Your task to perform on an android device: turn off javascript in the chrome app Image 0: 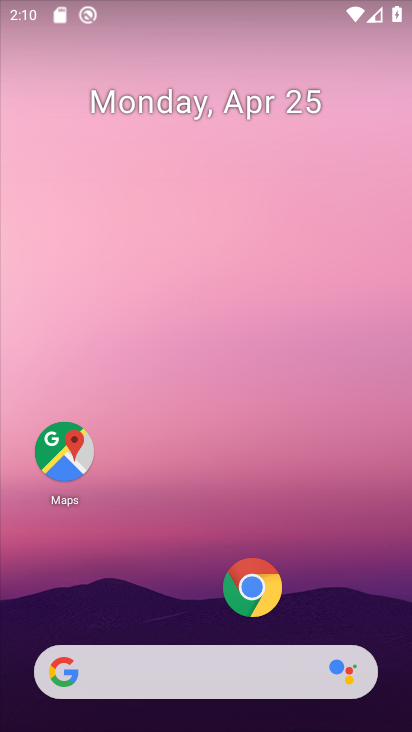
Step 0: drag from (188, 620) to (197, 3)
Your task to perform on an android device: turn off javascript in the chrome app Image 1: 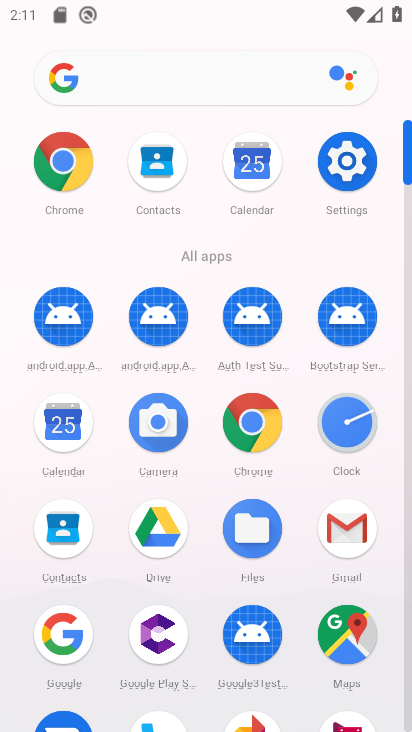
Step 1: click (248, 411)
Your task to perform on an android device: turn off javascript in the chrome app Image 2: 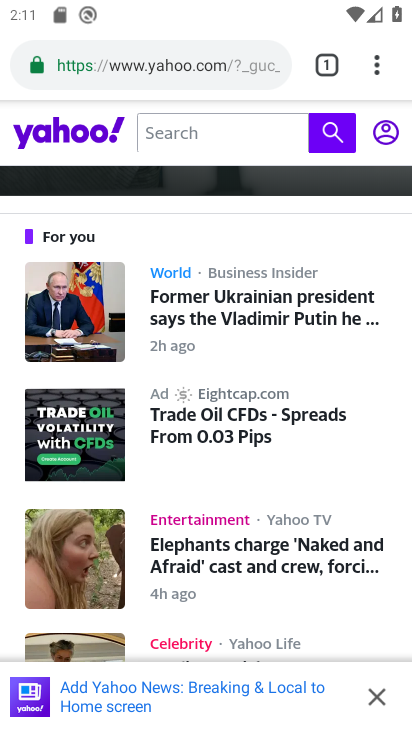
Step 2: click (372, 70)
Your task to perform on an android device: turn off javascript in the chrome app Image 3: 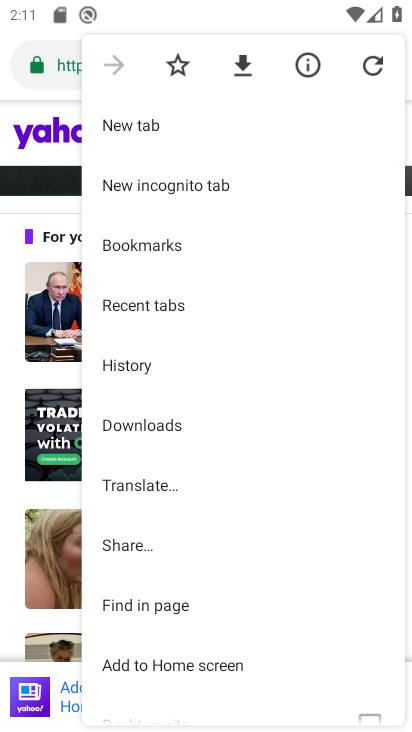
Step 3: drag from (224, 622) to (259, 225)
Your task to perform on an android device: turn off javascript in the chrome app Image 4: 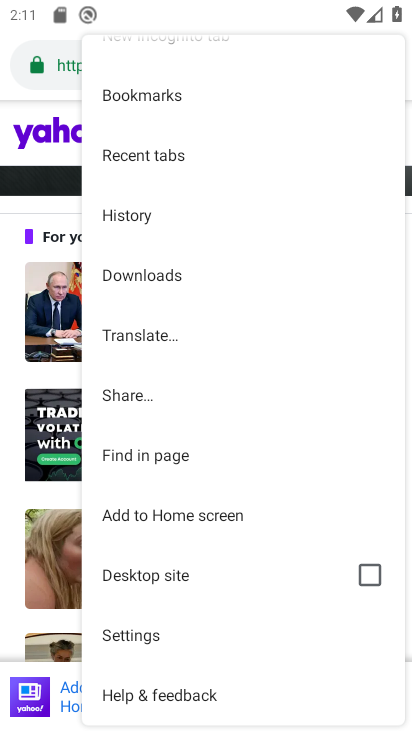
Step 4: click (166, 632)
Your task to perform on an android device: turn off javascript in the chrome app Image 5: 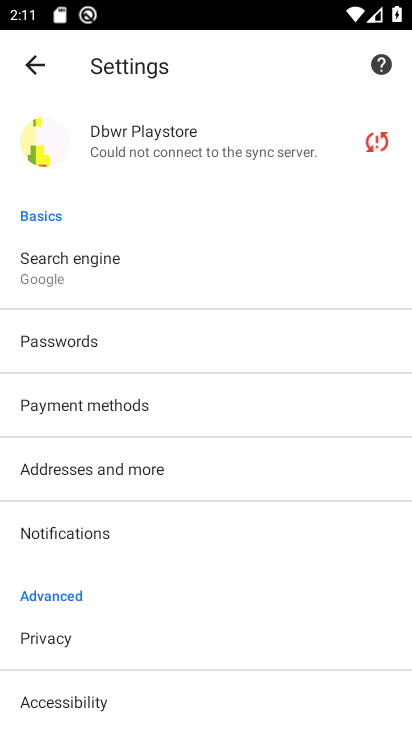
Step 5: drag from (190, 682) to (260, 124)
Your task to perform on an android device: turn off javascript in the chrome app Image 6: 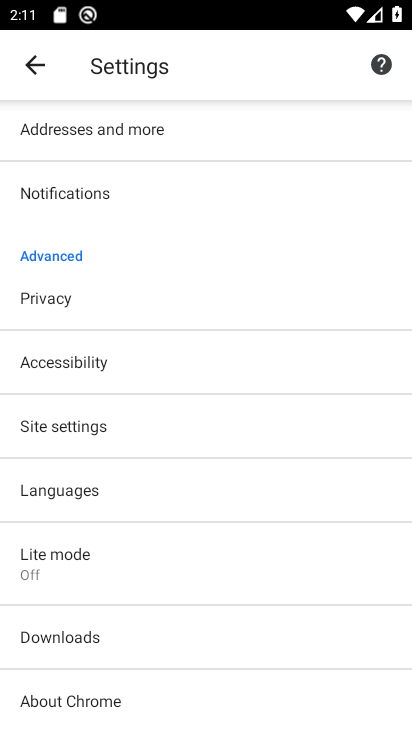
Step 6: click (127, 419)
Your task to perform on an android device: turn off javascript in the chrome app Image 7: 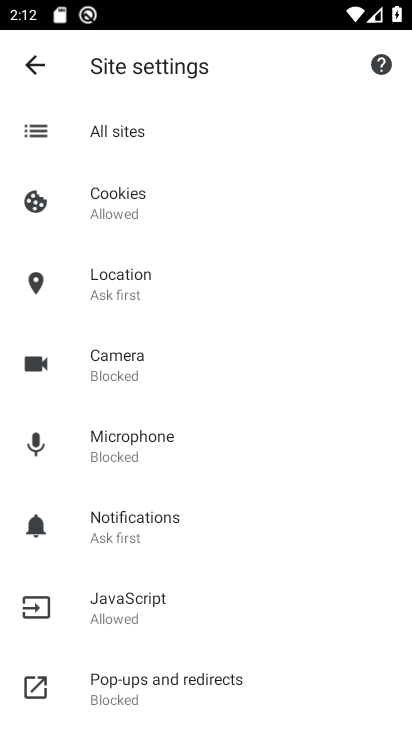
Step 7: click (168, 606)
Your task to perform on an android device: turn off javascript in the chrome app Image 8: 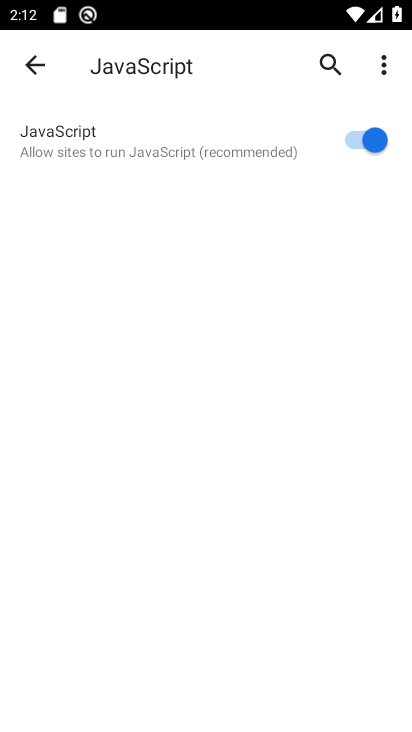
Step 8: click (351, 133)
Your task to perform on an android device: turn off javascript in the chrome app Image 9: 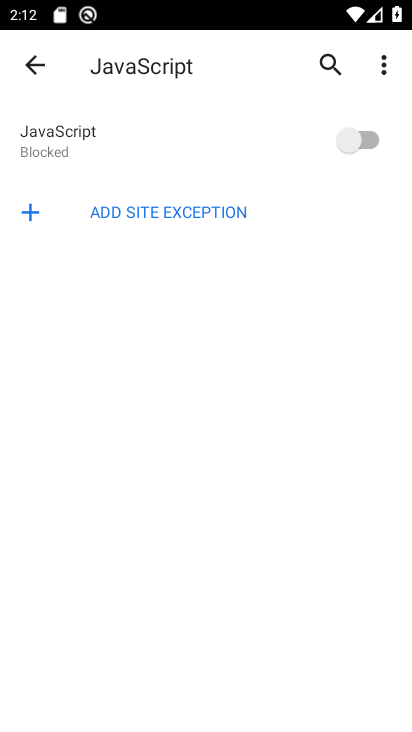
Step 9: task complete